Your task to perform on an android device: check google app version Image 0: 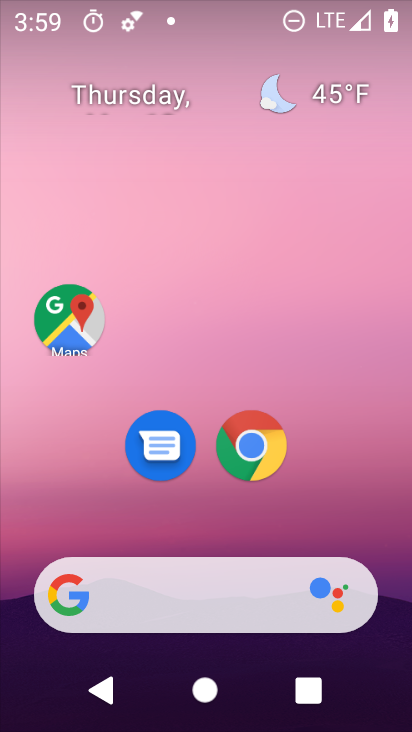
Step 0: drag from (328, 513) to (211, 30)
Your task to perform on an android device: check google app version Image 1: 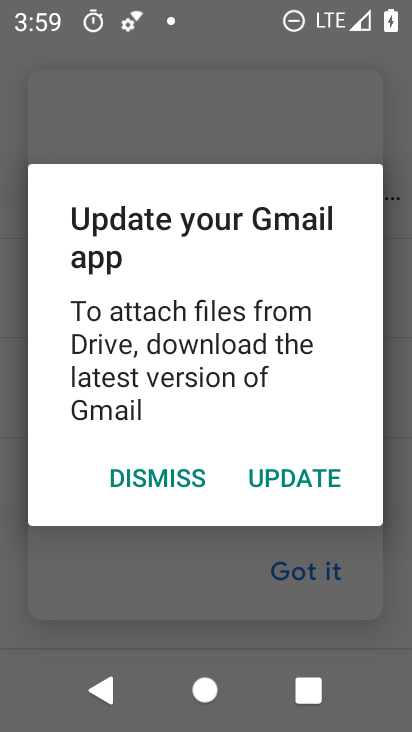
Step 1: press home button
Your task to perform on an android device: check google app version Image 2: 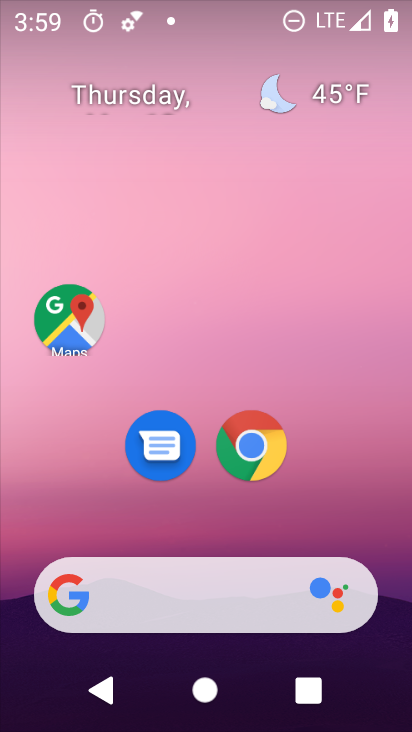
Step 2: drag from (292, 521) to (222, 79)
Your task to perform on an android device: check google app version Image 3: 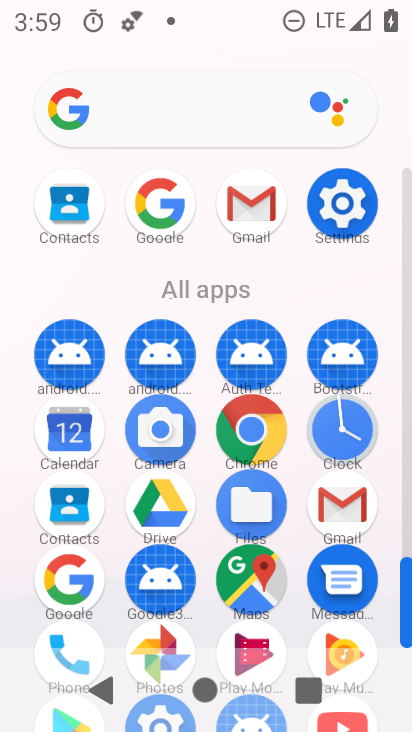
Step 3: click (155, 205)
Your task to perform on an android device: check google app version Image 4: 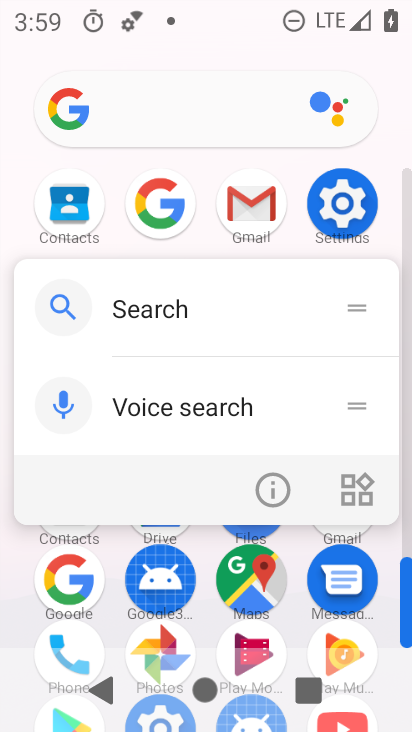
Step 4: click (280, 485)
Your task to perform on an android device: check google app version Image 5: 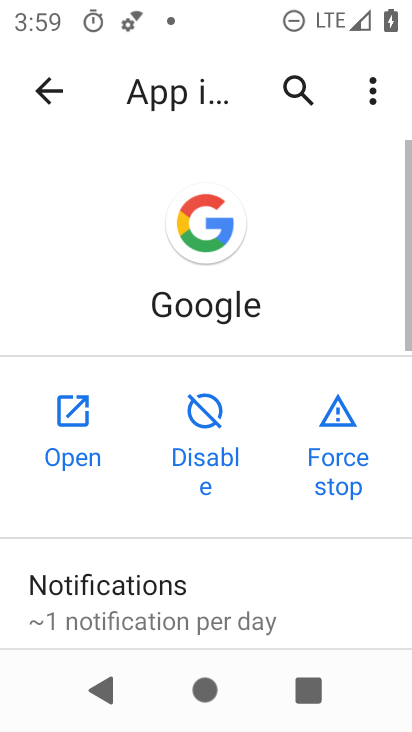
Step 5: drag from (242, 541) to (281, 223)
Your task to perform on an android device: check google app version Image 6: 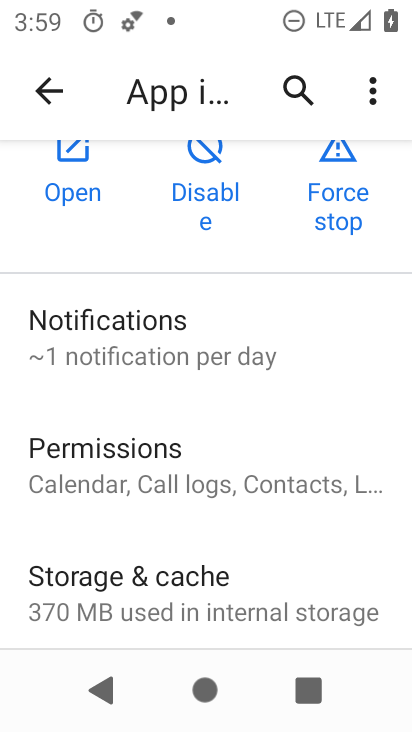
Step 6: drag from (250, 542) to (314, 342)
Your task to perform on an android device: check google app version Image 7: 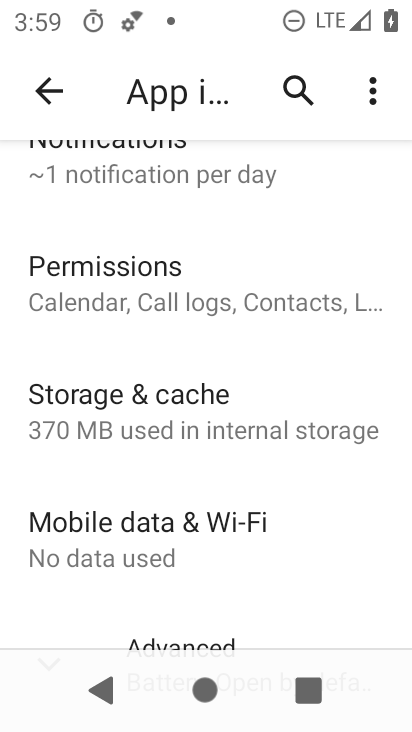
Step 7: drag from (219, 572) to (296, 355)
Your task to perform on an android device: check google app version Image 8: 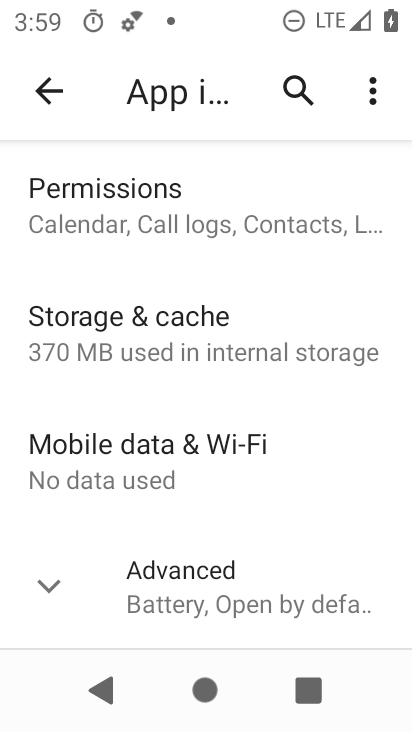
Step 8: click (196, 586)
Your task to perform on an android device: check google app version Image 9: 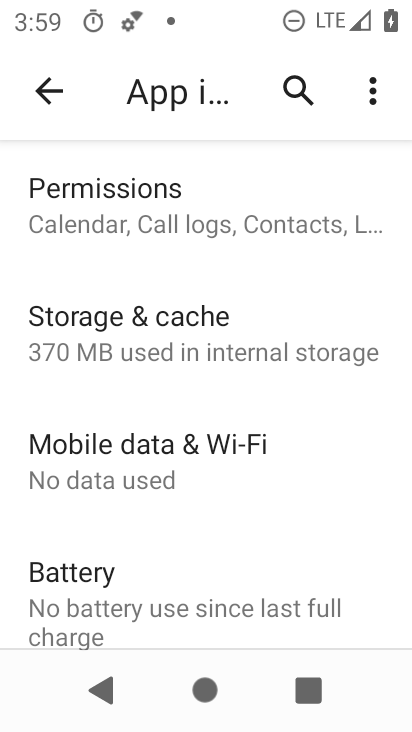
Step 9: task complete